Your task to perform on an android device: set the stopwatch Image 0: 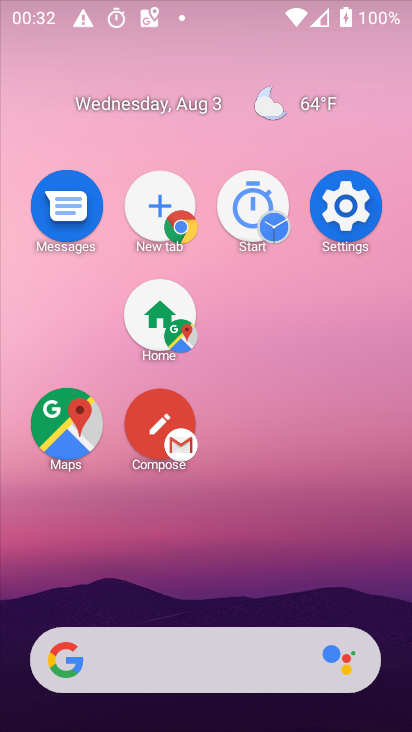
Step 0: drag from (275, 562) to (252, 352)
Your task to perform on an android device: set the stopwatch Image 1: 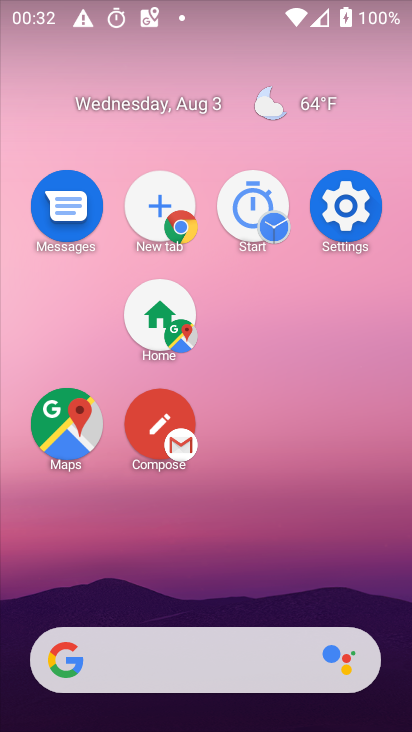
Step 1: drag from (242, 599) to (124, 96)
Your task to perform on an android device: set the stopwatch Image 2: 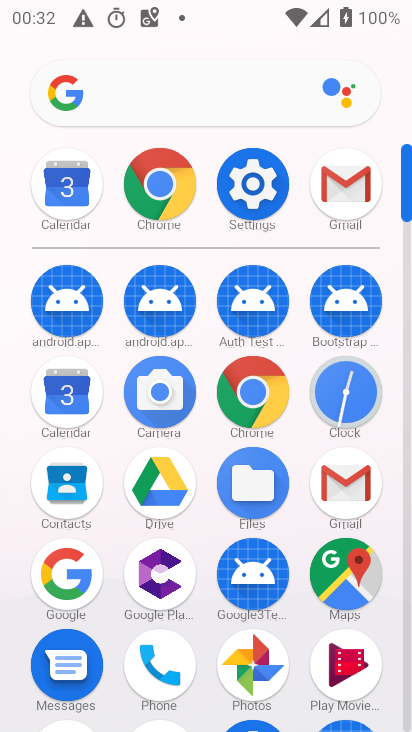
Step 2: drag from (271, 523) to (157, 135)
Your task to perform on an android device: set the stopwatch Image 3: 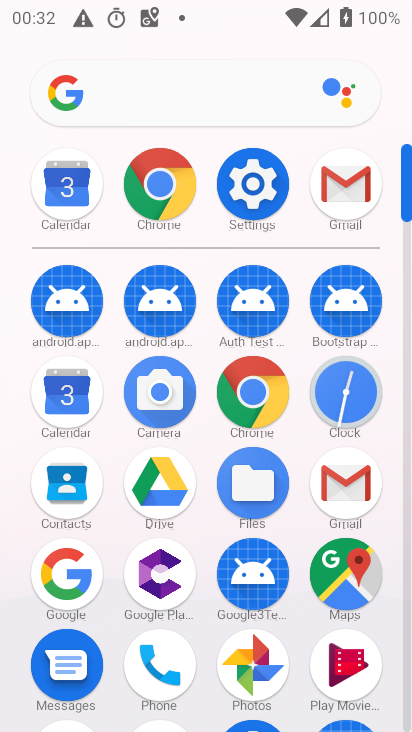
Step 3: click (347, 390)
Your task to perform on an android device: set the stopwatch Image 4: 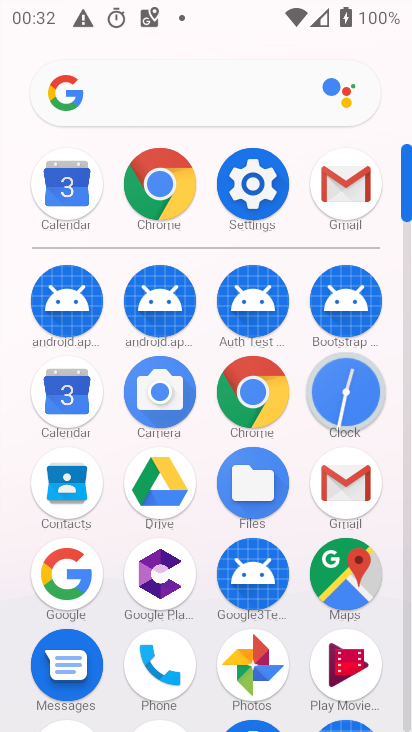
Step 4: click (347, 390)
Your task to perform on an android device: set the stopwatch Image 5: 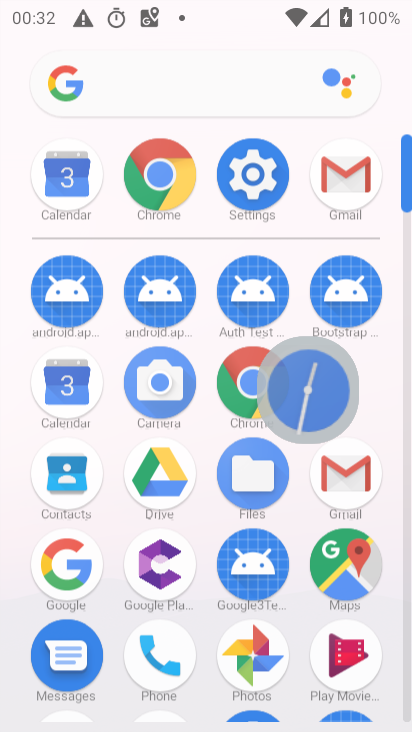
Step 5: click (347, 390)
Your task to perform on an android device: set the stopwatch Image 6: 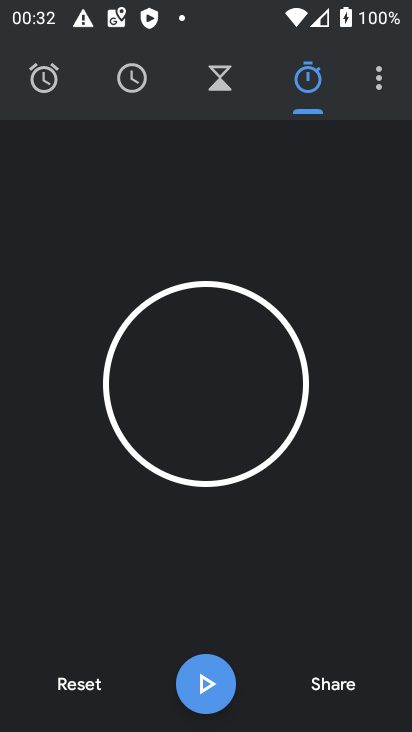
Step 6: click (207, 692)
Your task to perform on an android device: set the stopwatch Image 7: 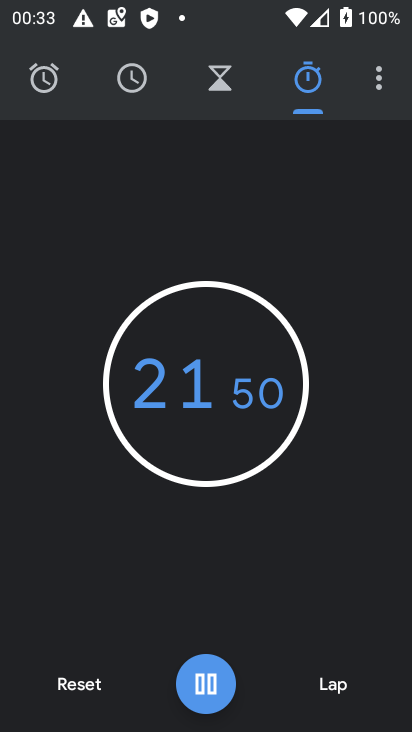
Step 7: click (204, 681)
Your task to perform on an android device: set the stopwatch Image 8: 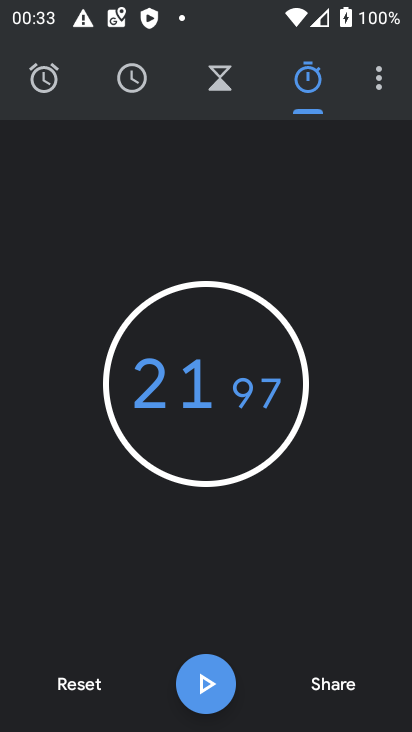
Step 8: task complete